Your task to perform on an android device: Show me popular games on the Play Store Image 0: 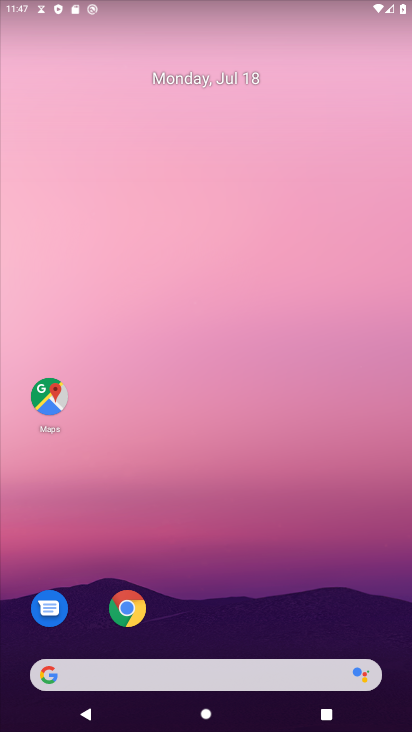
Step 0: drag from (247, 684) to (167, 65)
Your task to perform on an android device: Show me popular games on the Play Store Image 1: 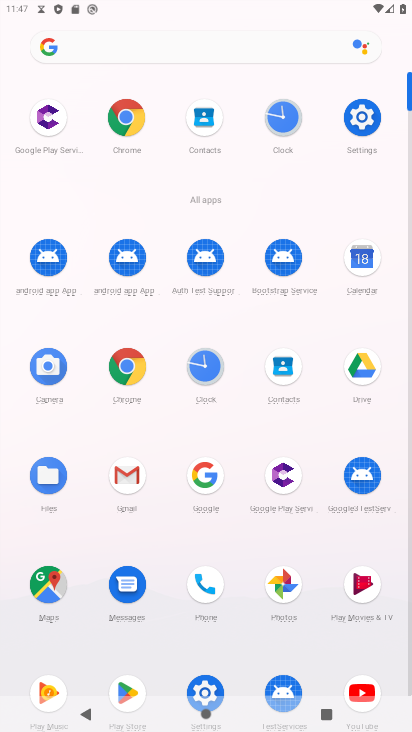
Step 1: click (116, 691)
Your task to perform on an android device: Show me popular games on the Play Store Image 2: 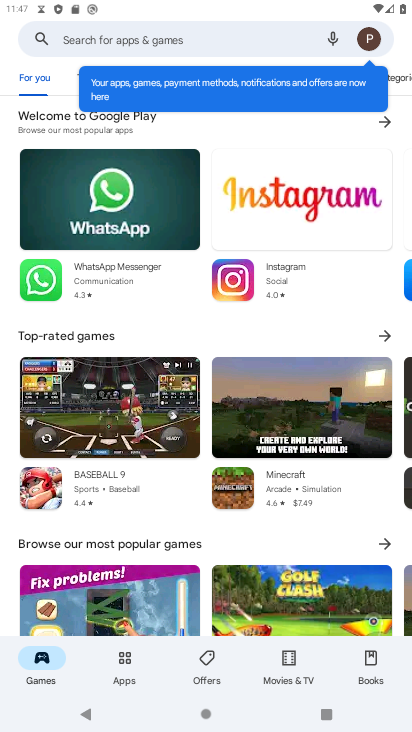
Step 2: click (366, 33)
Your task to perform on an android device: Show me popular games on the Play Store Image 3: 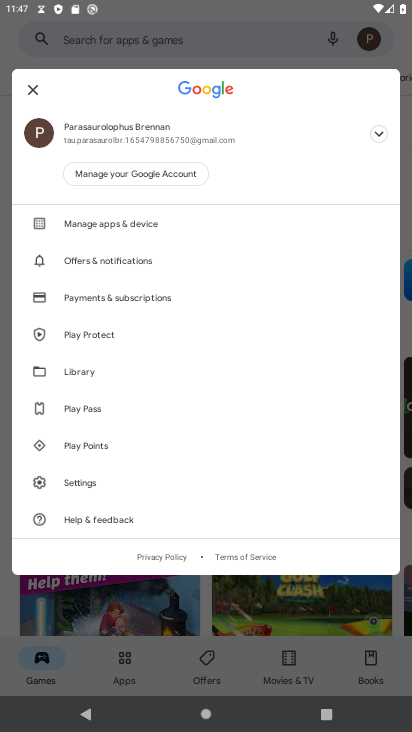
Step 3: click (213, 609)
Your task to perform on an android device: Show me popular games on the Play Store Image 4: 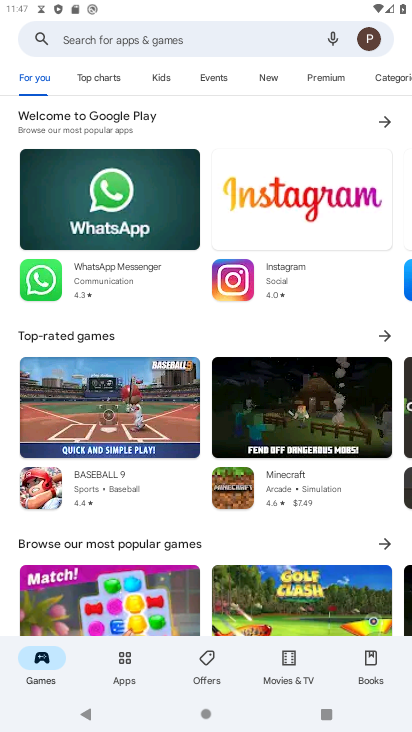
Step 4: task complete